Your task to perform on an android device: Search for razer blade on target, select the first entry, and add it to the cart. Image 0: 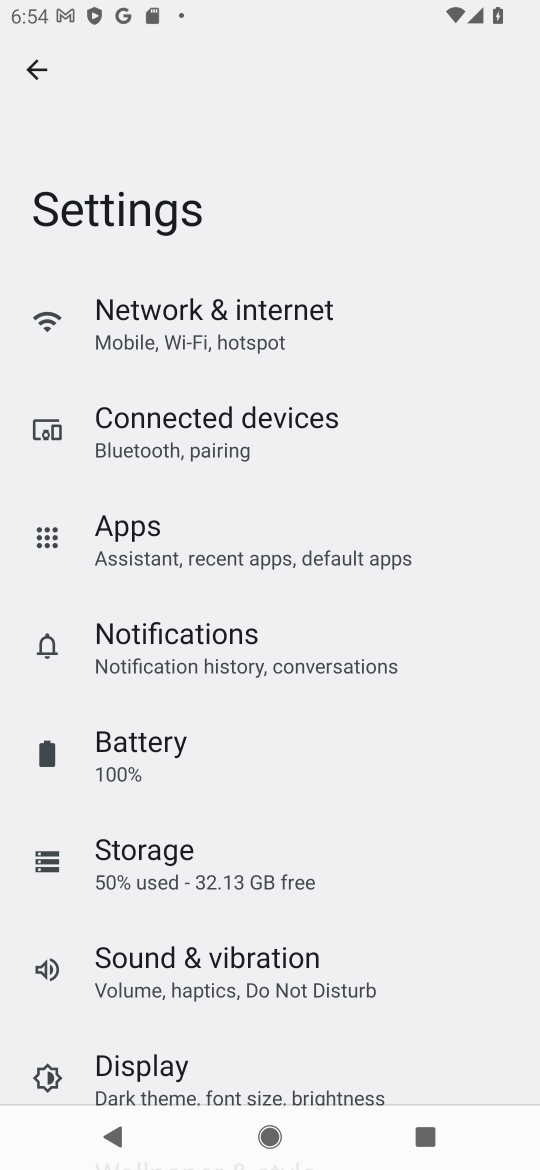
Step 0: press home button
Your task to perform on an android device: Search for razer blade on target, select the first entry, and add it to the cart. Image 1: 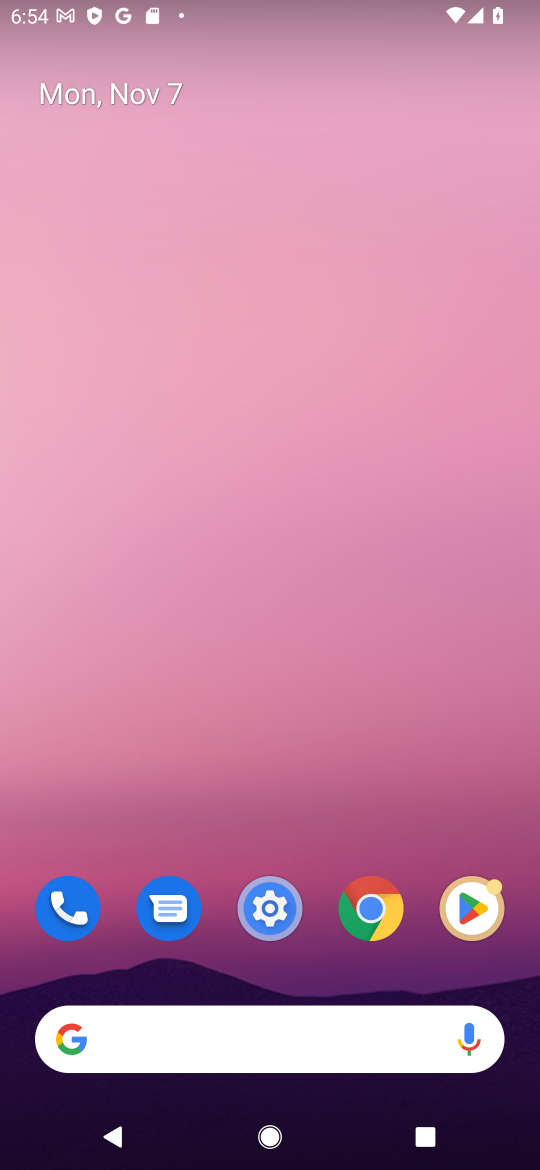
Step 1: click (186, 1041)
Your task to perform on an android device: Search for razer blade on target, select the first entry, and add it to the cart. Image 2: 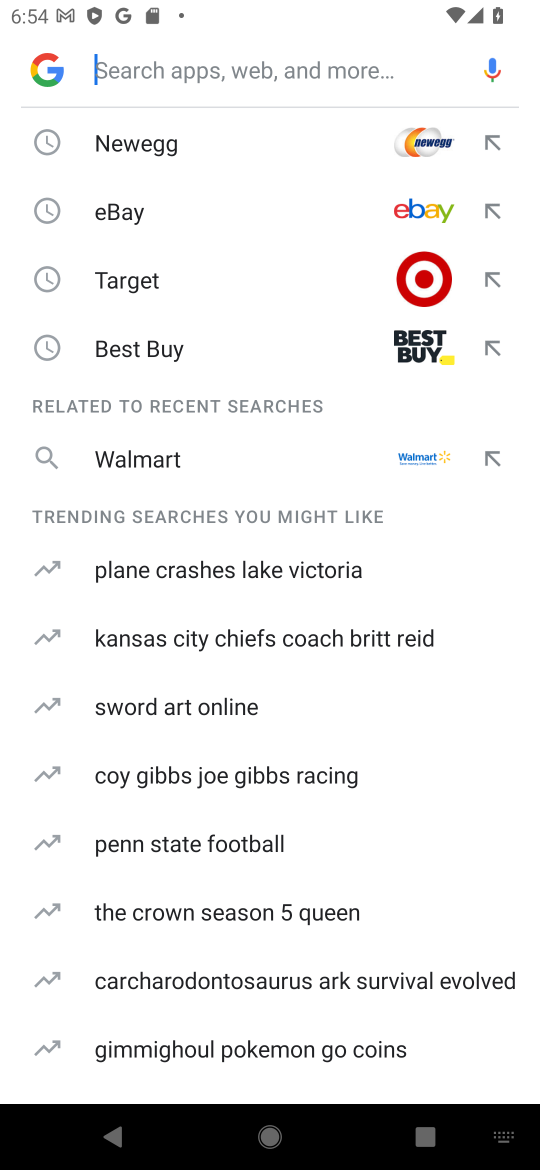
Step 2: click (285, 265)
Your task to perform on an android device: Search for razer blade on target, select the first entry, and add it to the cart. Image 3: 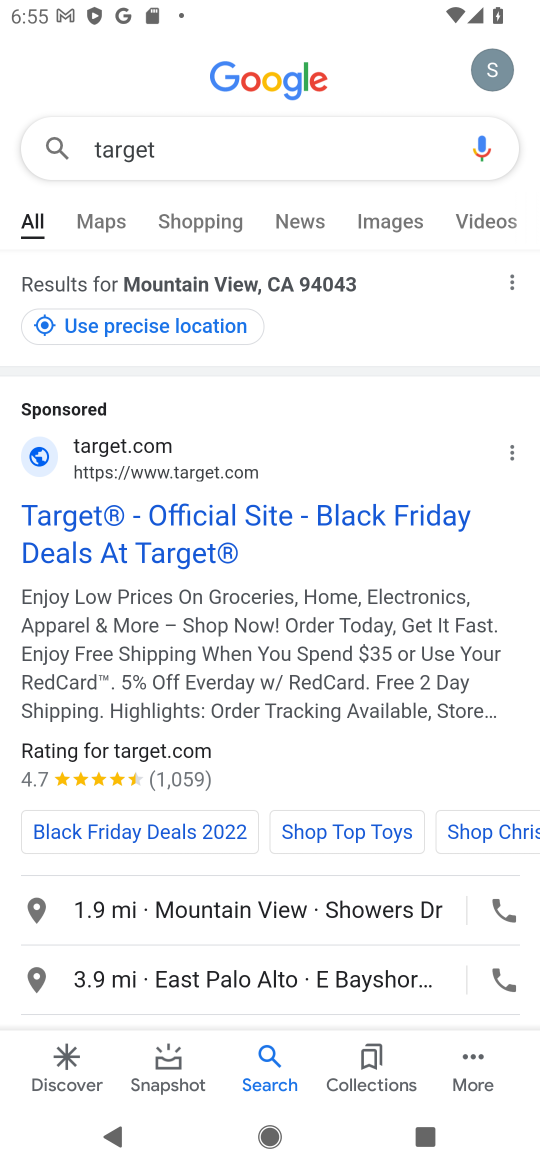
Step 3: click (243, 511)
Your task to perform on an android device: Search for razer blade on target, select the first entry, and add it to the cart. Image 4: 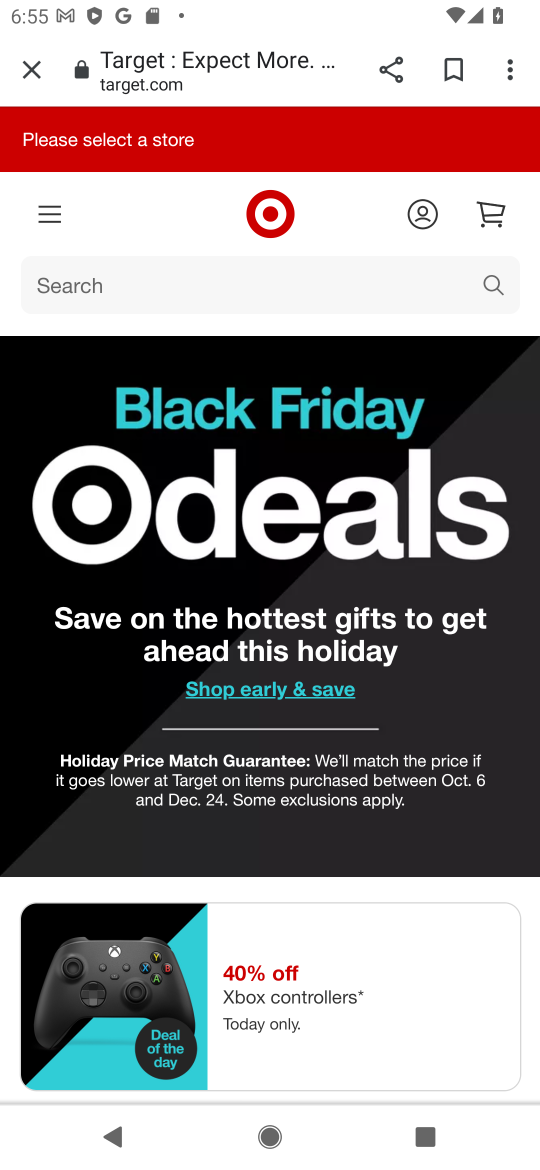
Step 4: task complete